Your task to perform on an android device: Open the calendar and show me this week's events Image 0: 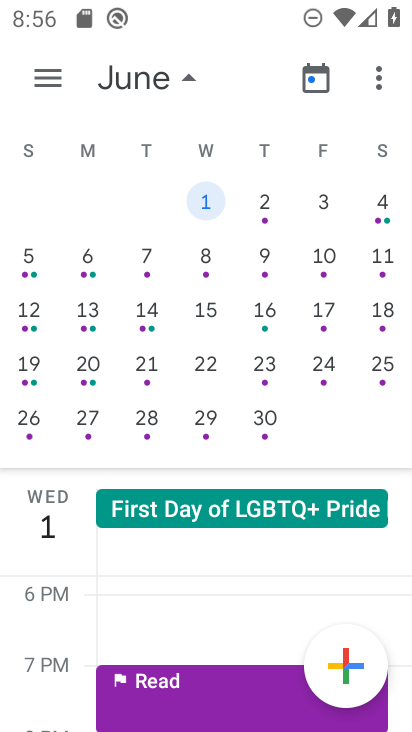
Step 0: press home button
Your task to perform on an android device: Open the calendar and show me this week's events Image 1: 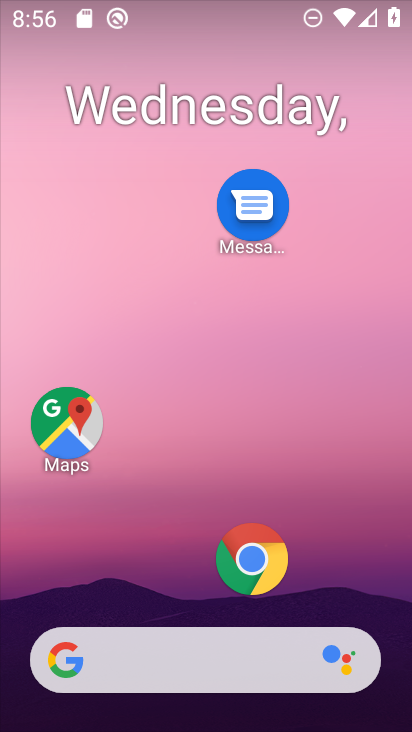
Step 1: drag from (213, 629) to (174, 179)
Your task to perform on an android device: Open the calendar and show me this week's events Image 2: 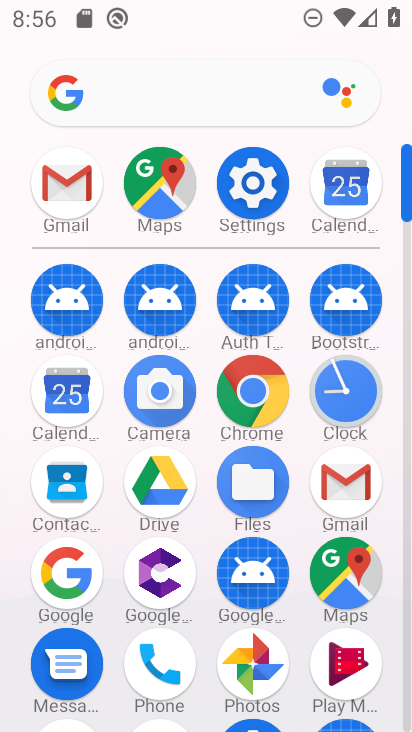
Step 2: click (65, 411)
Your task to perform on an android device: Open the calendar and show me this week's events Image 3: 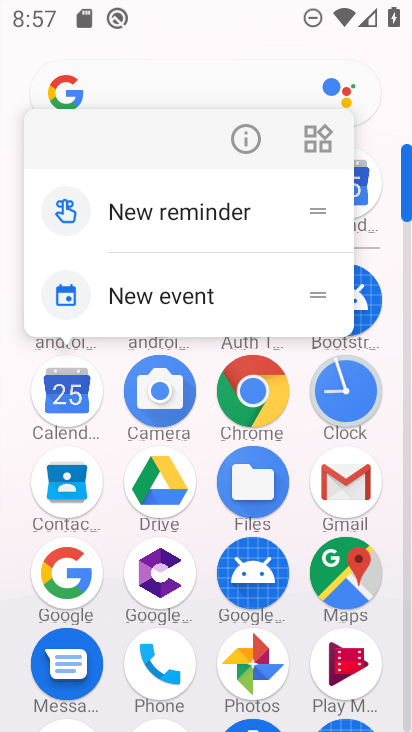
Step 3: click (54, 407)
Your task to perform on an android device: Open the calendar and show me this week's events Image 4: 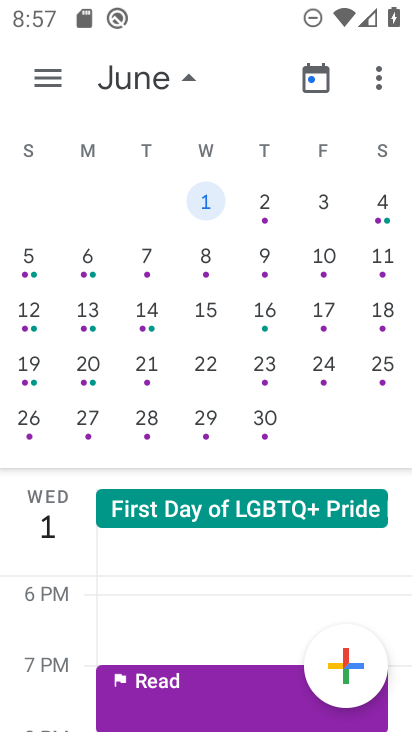
Step 4: drag from (148, 369) to (408, 315)
Your task to perform on an android device: Open the calendar and show me this week's events Image 5: 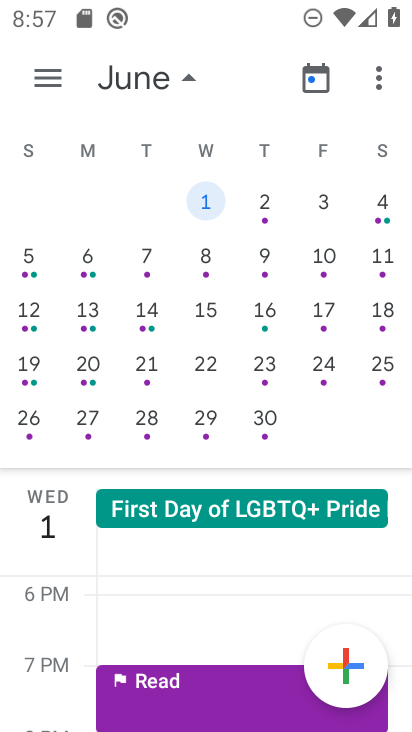
Step 5: drag from (222, 352) to (293, 343)
Your task to perform on an android device: Open the calendar and show me this week's events Image 6: 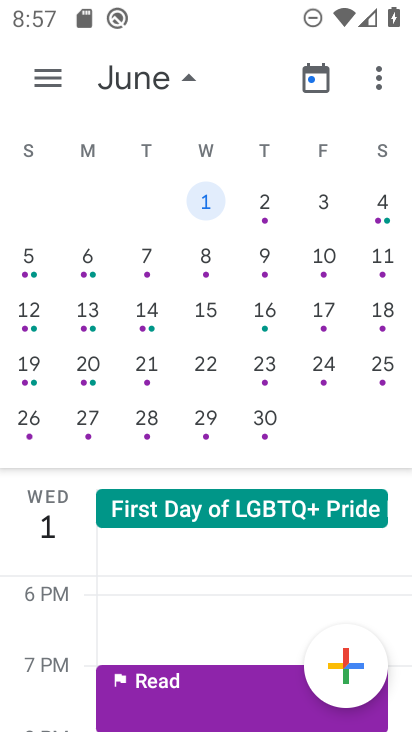
Step 6: drag from (72, 384) to (389, 279)
Your task to perform on an android device: Open the calendar and show me this week's events Image 7: 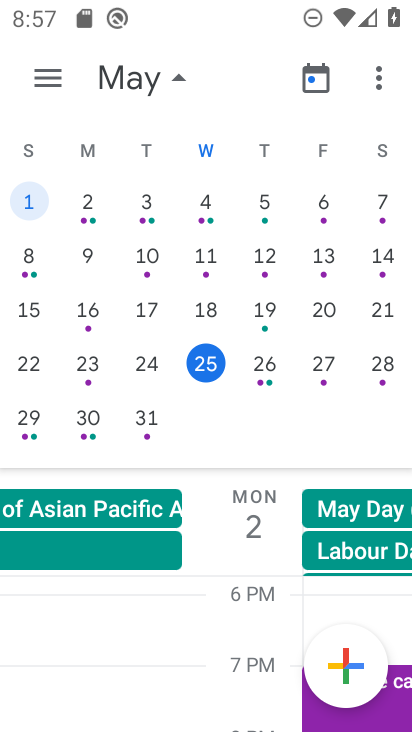
Step 7: drag from (256, 345) to (412, 352)
Your task to perform on an android device: Open the calendar and show me this week's events Image 8: 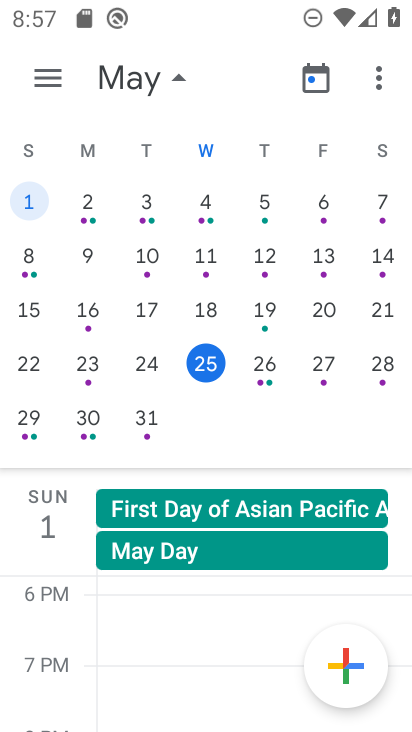
Step 8: click (208, 363)
Your task to perform on an android device: Open the calendar and show me this week's events Image 9: 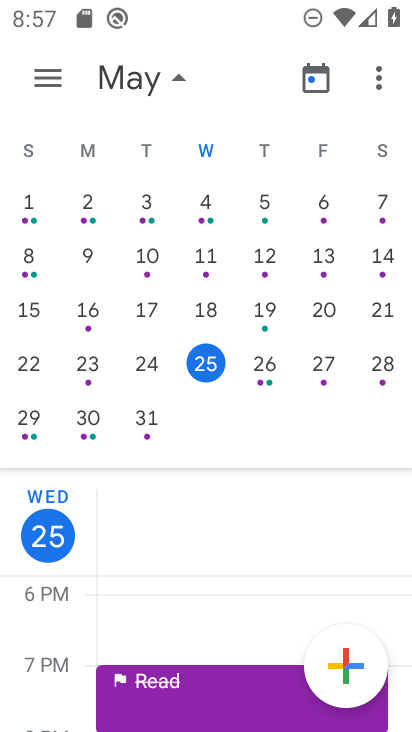
Step 9: click (257, 373)
Your task to perform on an android device: Open the calendar and show me this week's events Image 10: 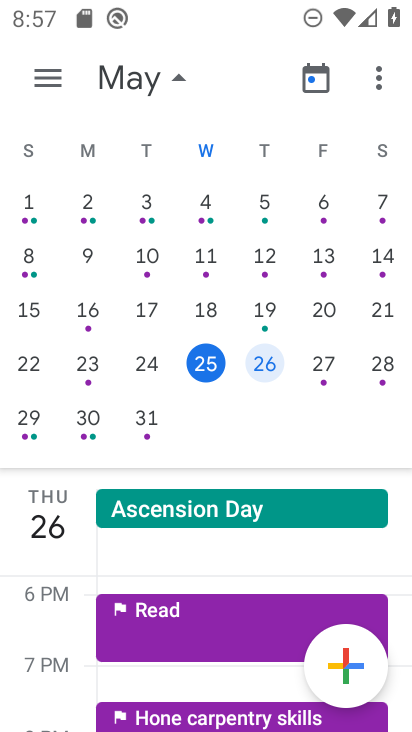
Step 10: task complete